Your task to perform on an android device: show emergency info Image 0: 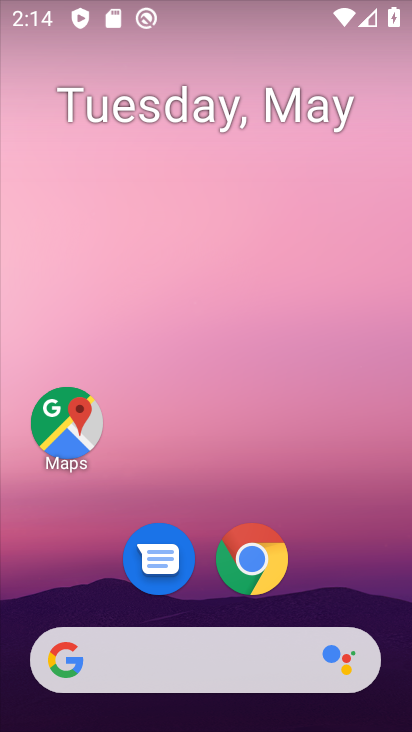
Step 0: drag from (329, 568) to (276, 98)
Your task to perform on an android device: show emergency info Image 1: 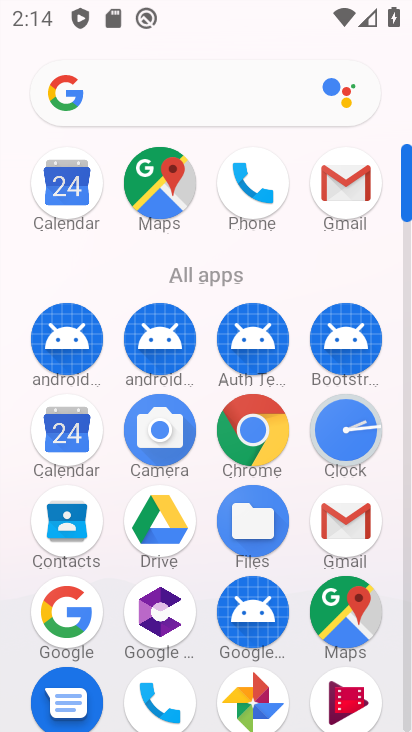
Step 1: drag from (196, 576) to (226, 366)
Your task to perform on an android device: show emergency info Image 2: 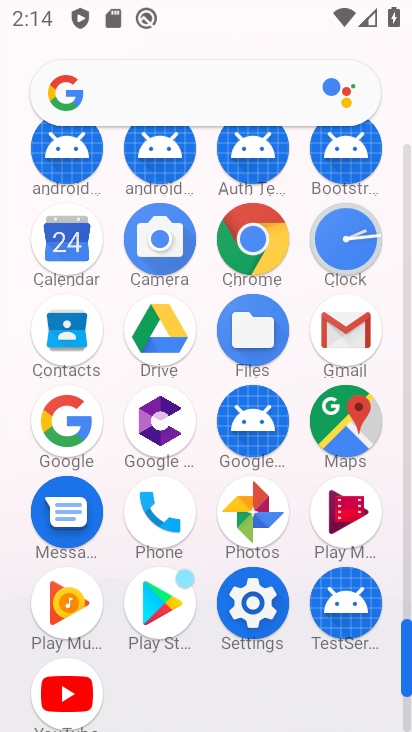
Step 2: click (253, 601)
Your task to perform on an android device: show emergency info Image 3: 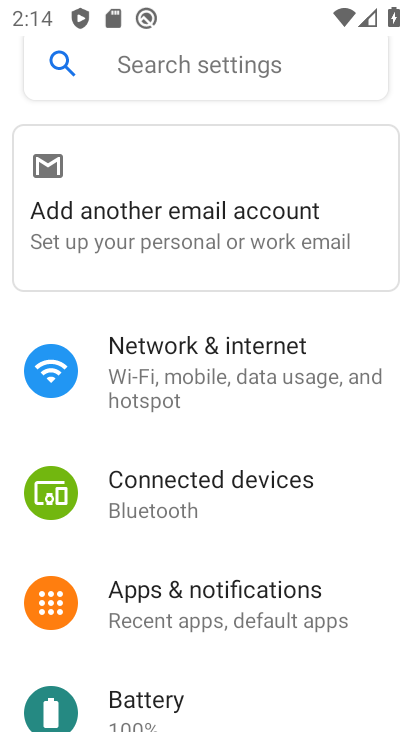
Step 3: drag from (213, 528) to (273, 53)
Your task to perform on an android device: show emergency info Image 4: 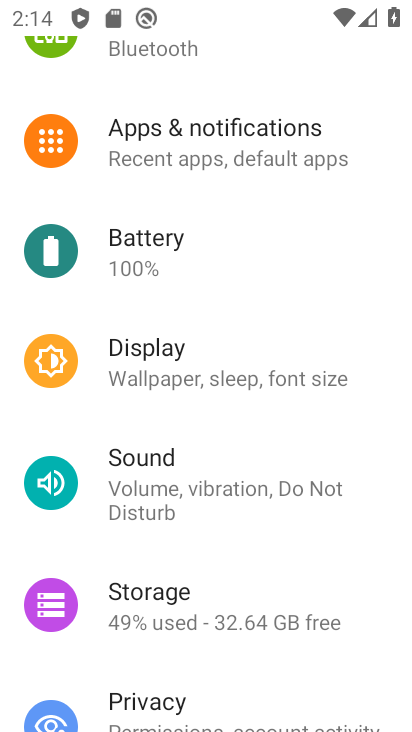
Step 4: drag from (210, 434) to (306, 27)
Your task to perform on an android device: show emergency info Image 5: 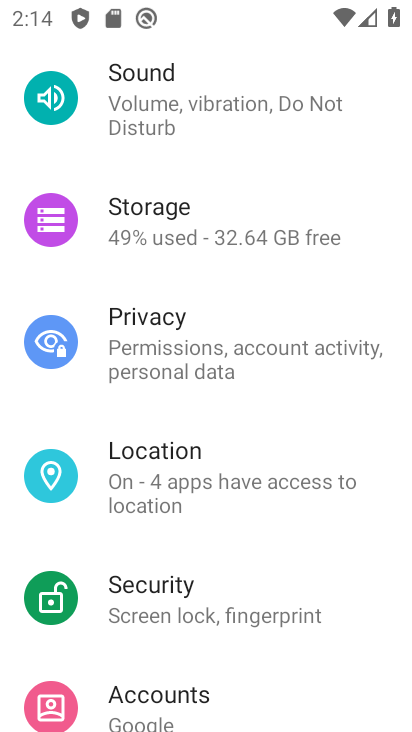
Step 5: drag from (203, 654) to (268, 65)
Your task to perform on an android device: show emergency info Image 6: 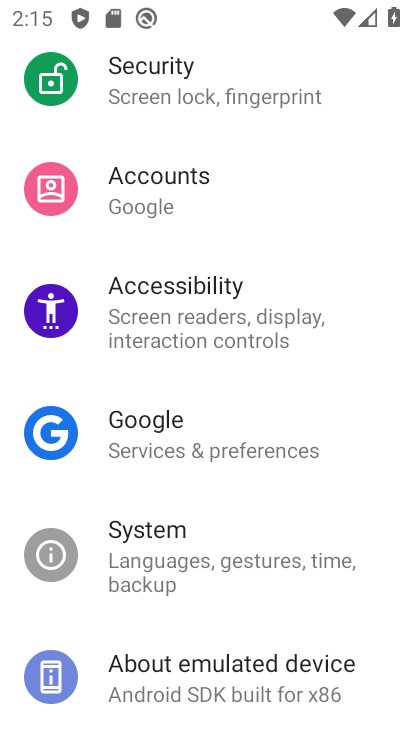
Step 6: click (171, 663)
Your task to perform on an android device: show emergency info Image 7: 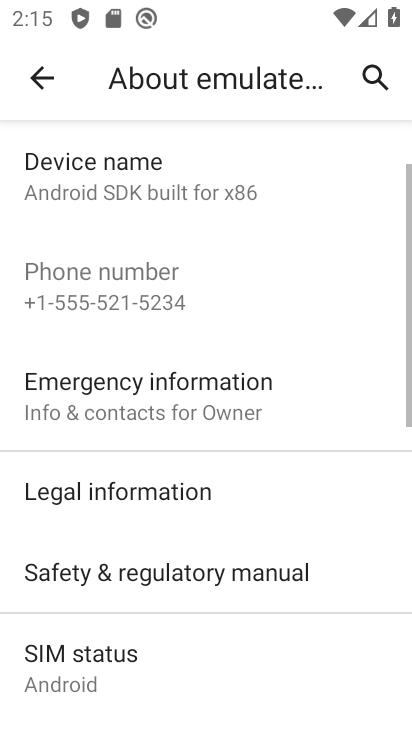
Step 7: click (178, 398)
Your task to perform on an android device: show emergency info Image 8: 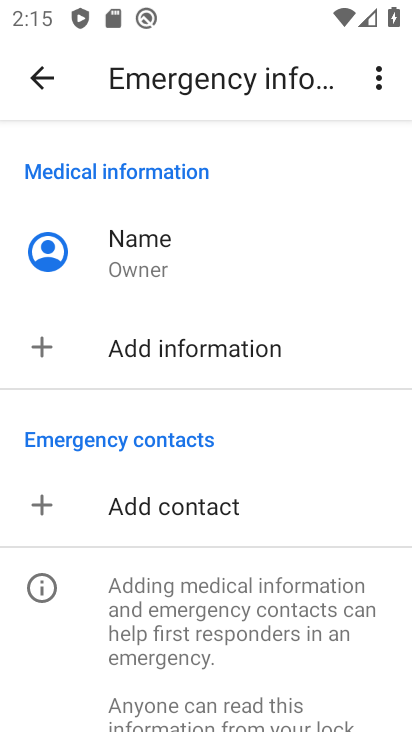
Step 8: task complete